Your task to perform on an android device: Go to Google maps Image 0: 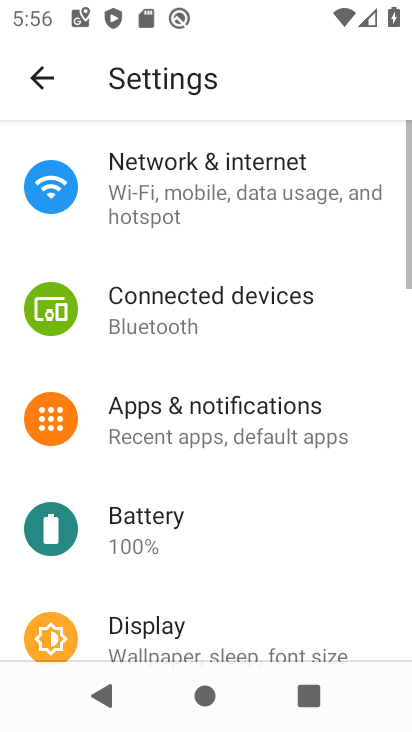
Step 0: press home button
Your task to perform on an android device: Go to Google maps Image 1: 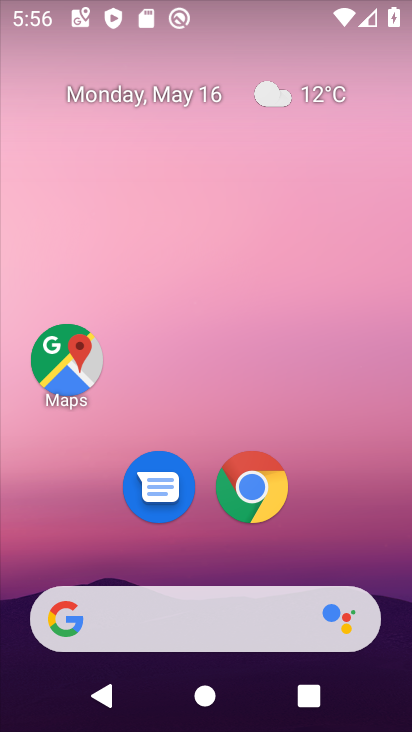
Step 1: drag from (337, 519) to (286, 152)
Your task to perform on an android device: Go to Google maps Image 2: 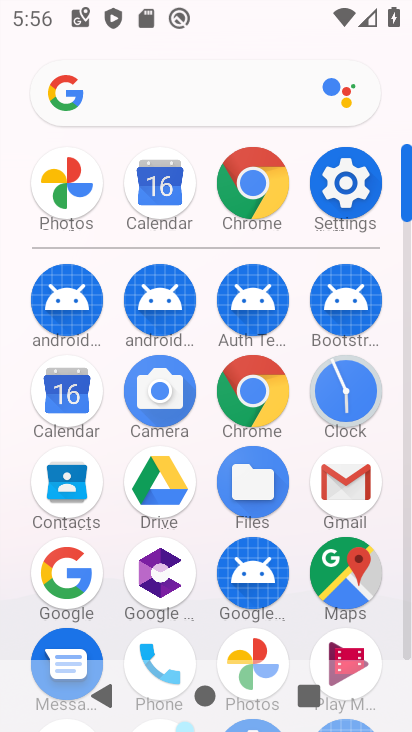
Step 2: click (348, 565)
Your task to perform on an android device: Go to Google maps Image 3: 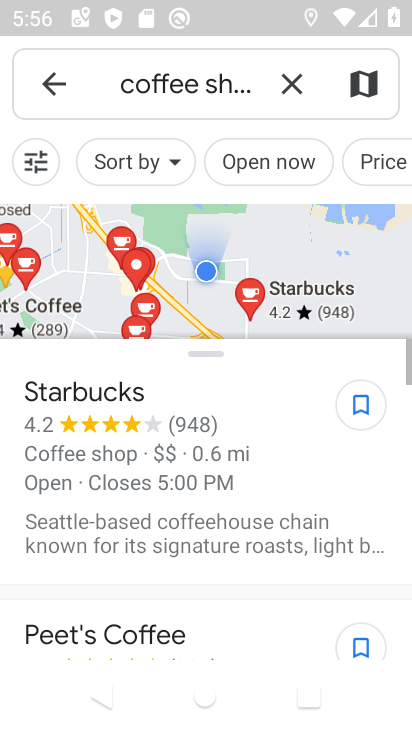
Step 3: task complete